Your task to perform on an android device: See recent photos Image 0: 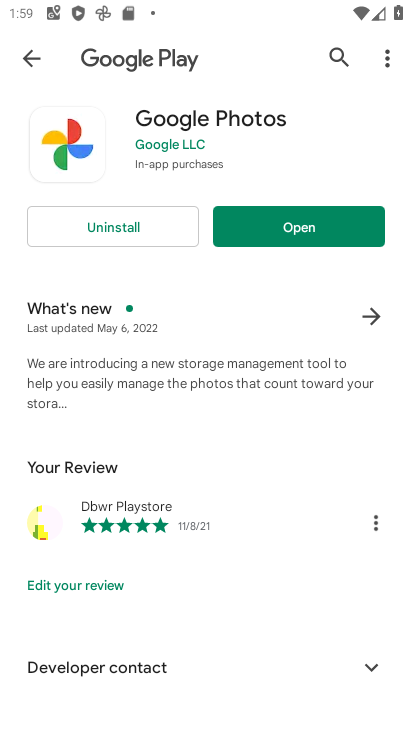
Step 0: press home button
Your task to perform on an android device: See recent photos Image 1: 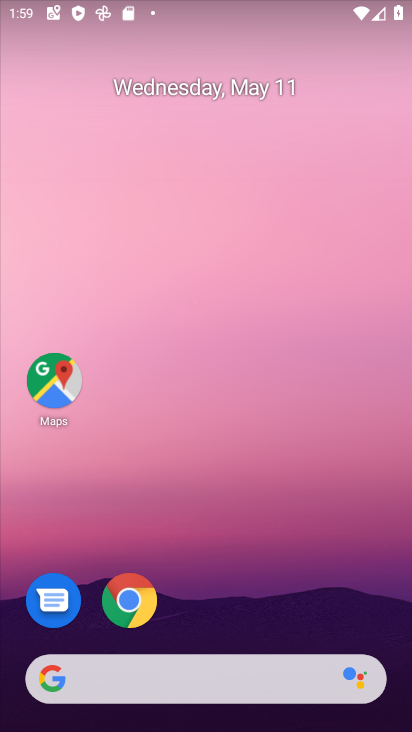
Step 1: drag from (305, 720) to (384, 130)
Your task to perform on an android device: See recent photos Image 2: 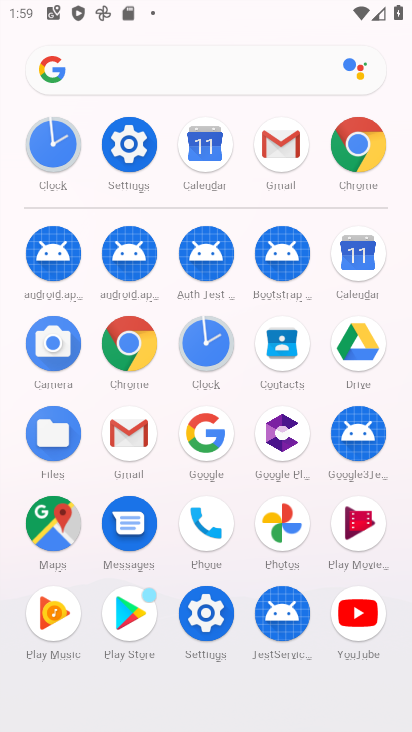
Step 2: click (272, 524)
Your task to perform on an android device: See recent photos Image 3: 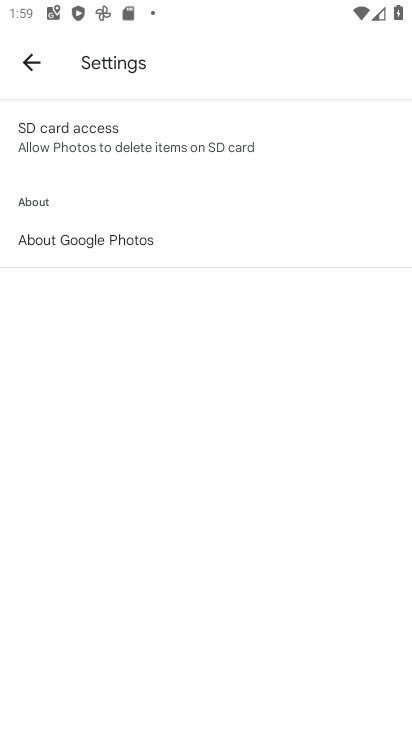
Step 3: click (35, 51)
Your task to perform on an android device: See recent photos Image 4: 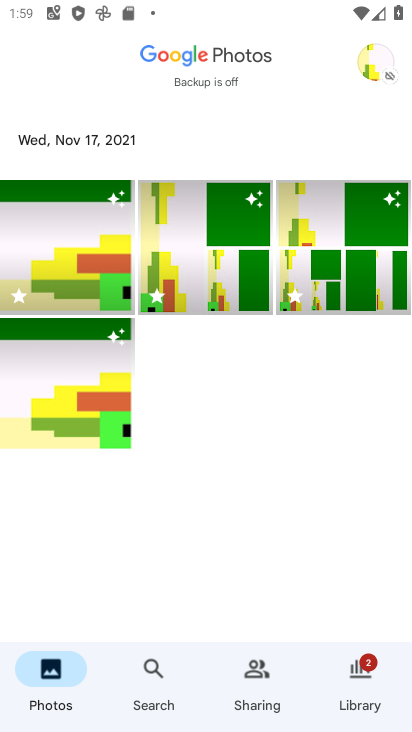
Step 4: task complete